Your task to perform on an android device: Go to battery settings Image 0: 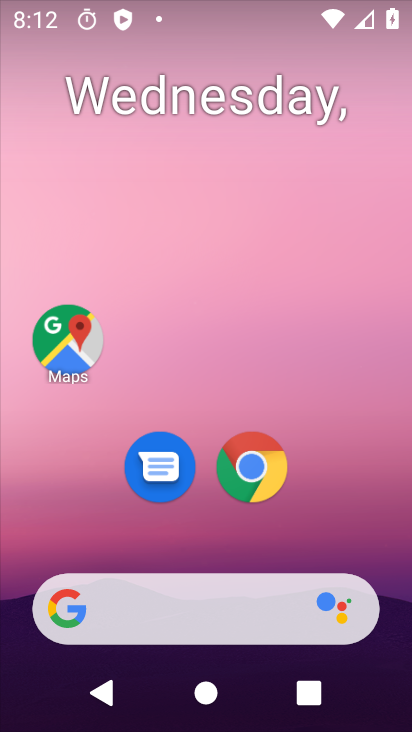
Step 0: drag from (365, 462) to (316, 102)
Your task to perform on an android device: Go to battery settings Image 1: 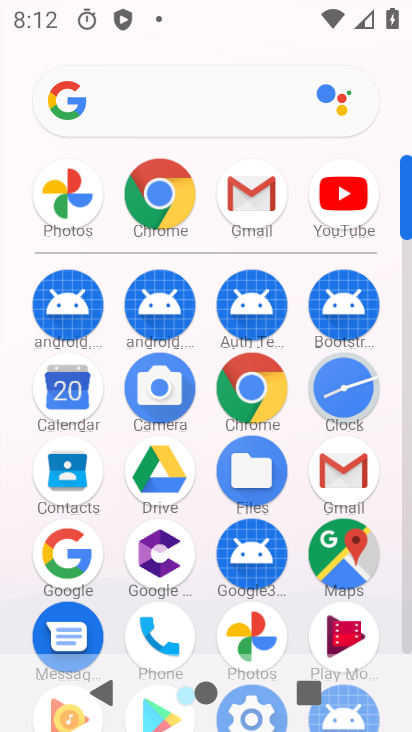
Step 1: click (250, 697)
Your task to perform on an android device: Go to battery settings Image 2: 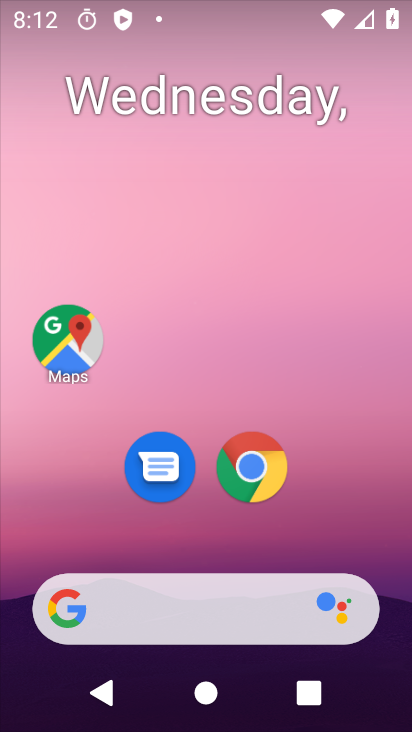
Step 2: drag from (384, 563) to (388, 23)
Your task to perform on an android device: Go to battery settings Image 3: 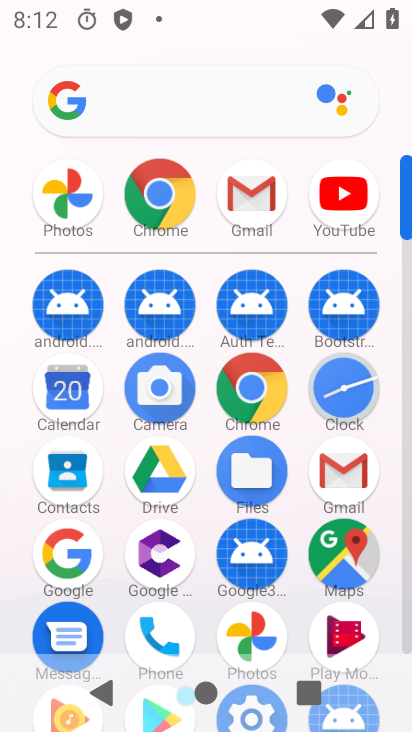
Step 3: drag from (404, 188) to (405, 112)
Your task to perform on an android device: Go to battery settings Image 4: 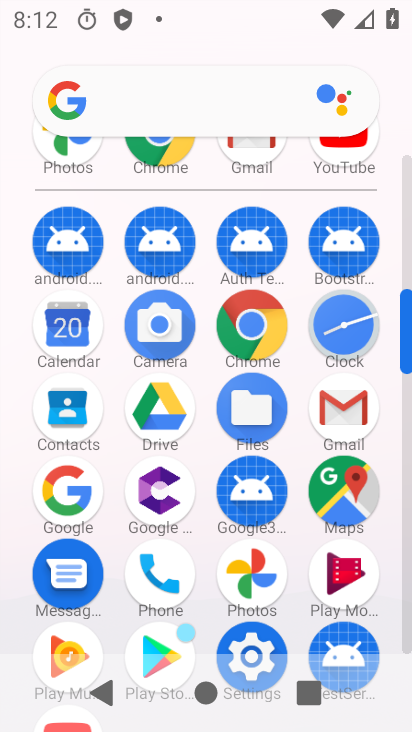
Step 4: click (243, 637)
Your task to perform on an android device: Go to battery settings Image 5: 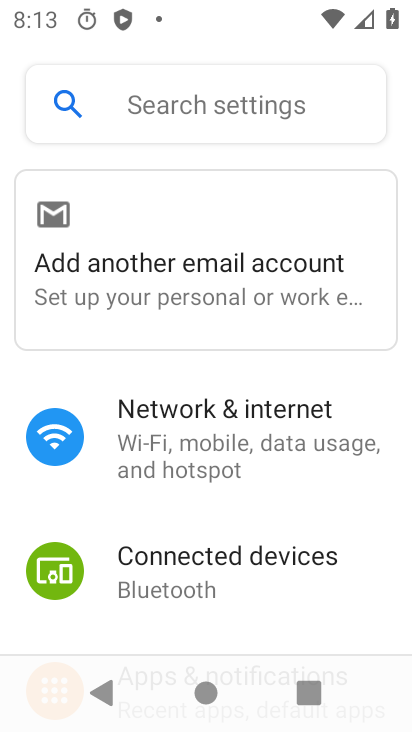
Step 5: drag from (273, 589) to (317, 177)
Your task to perform on an android device: Go to battery settings Image 6: 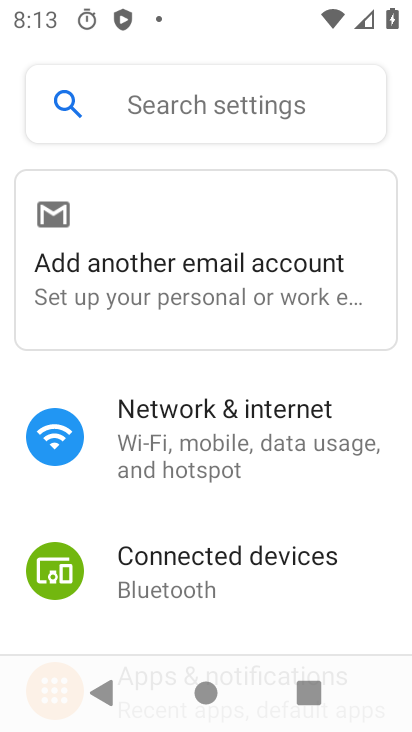
Step 6: drag from (367, 601) to (371, 124)
Your task to perform on an android device: Go to battery settings Image 7: 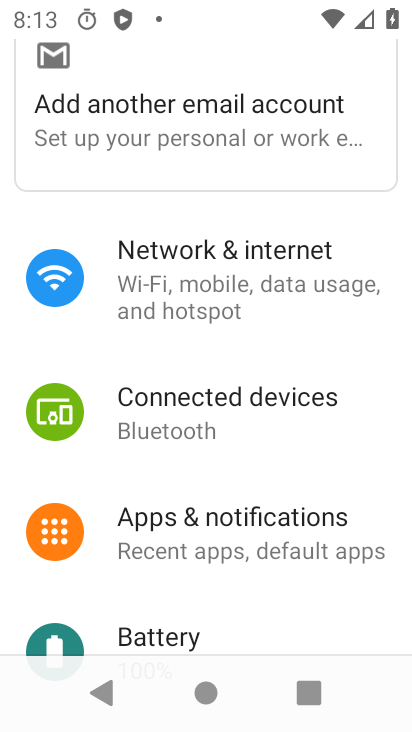
Step 7: click (152, 625)
Your task to perform on an android device: Go to battery settings Image 8: 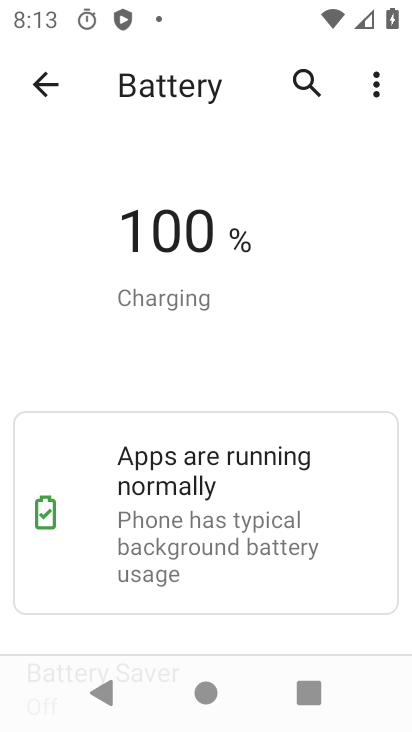
Step 8: click (375, 77)
Your task to perform on an android device: Go to battery settings Image 9: 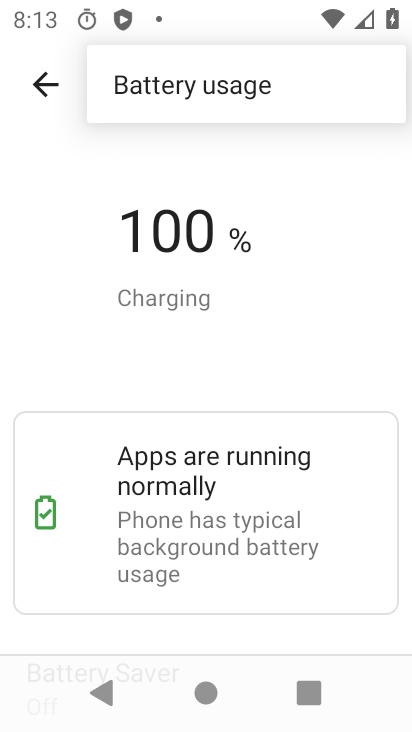
Step 9: click (241, 84)
Your task to perform on an android device: Go to battery settings Image 10: 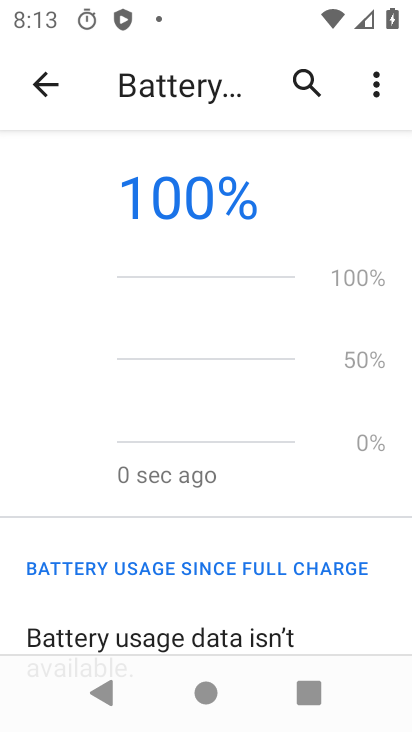
Step 10: click (51, 73)
Your task to perform on an android device: Go to battery settings Image 11: 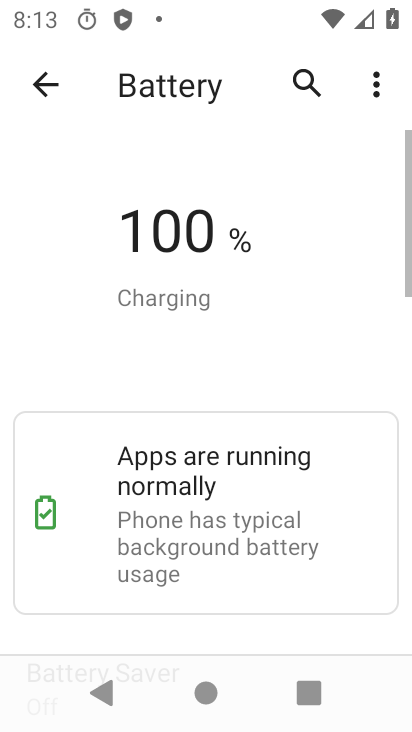
Step 11: task complete